Your task to perform on an android device: Go to eBay Image 0: 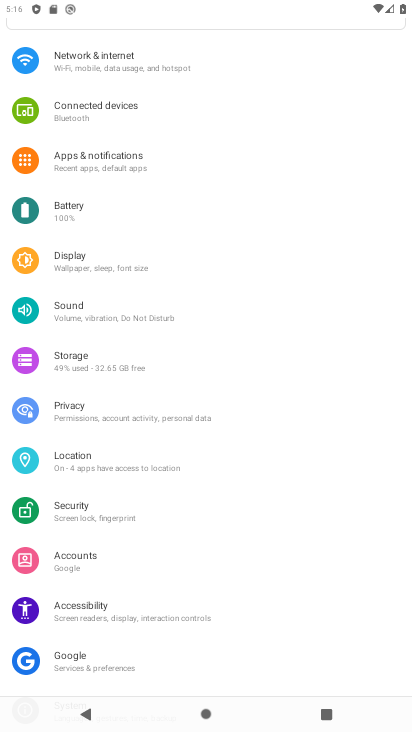
Step 0: press home button
Your task to perform on an android device: Go to eBay Image 1: 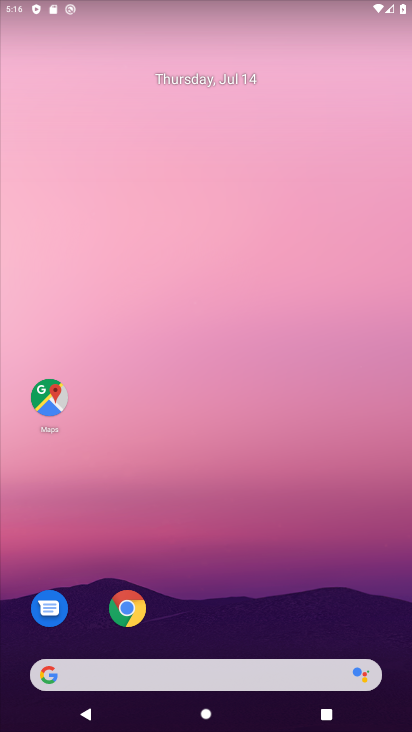
Step 1: click (129, 611)
Your task to perform on an android device: Go to eBay Image 2: 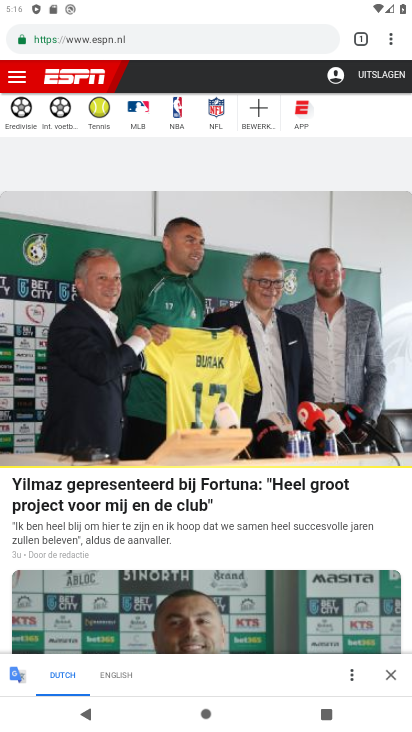
Step 2: click (243, 40)
Your task to perform on an android device: Go to eBay Image 3: 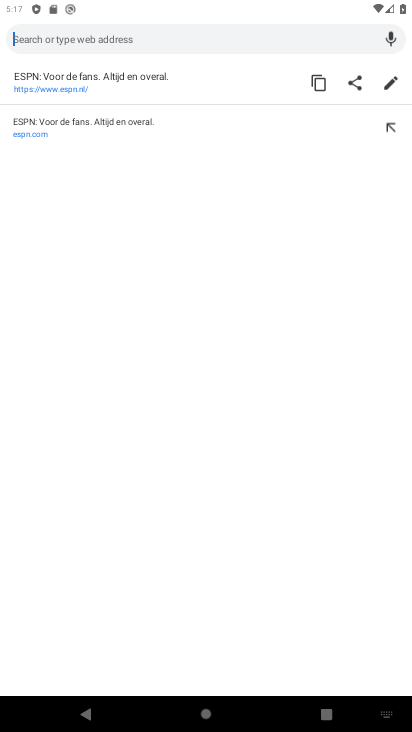
Step 3: type "eBay"
Your task to perform on an android device: Go to eBay Image 4: 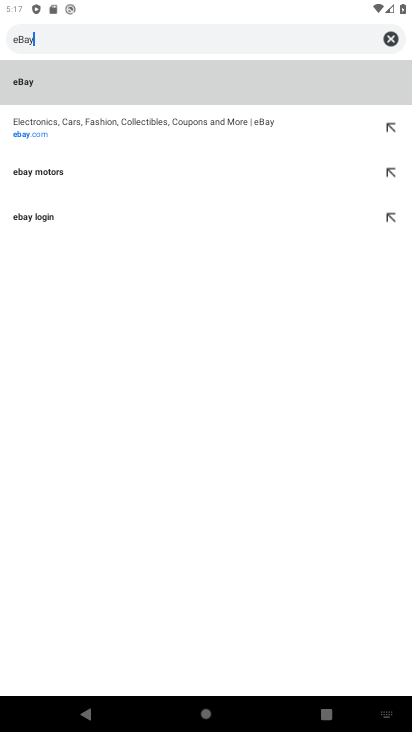
Step 4: click (41, 89)
Your task to perform on an android device: Go to eBay Image 5: 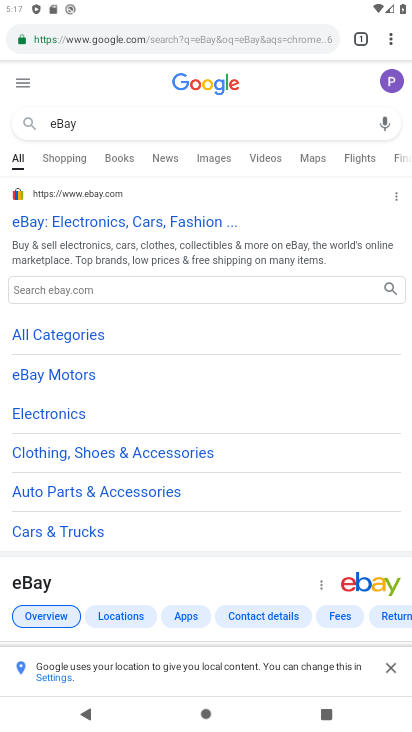
Step 5: click (69, 220)
Your task to perform on an android device: Go to eBay Image 6: 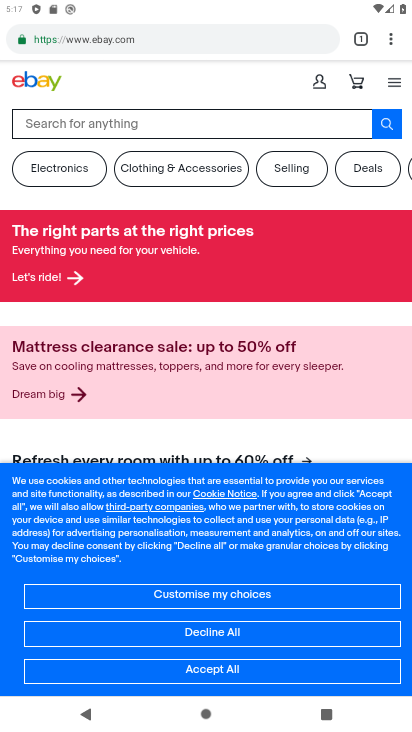
Step 6: click (250, 670)
Your task to perform on an android device: Go to eBay Image 7: 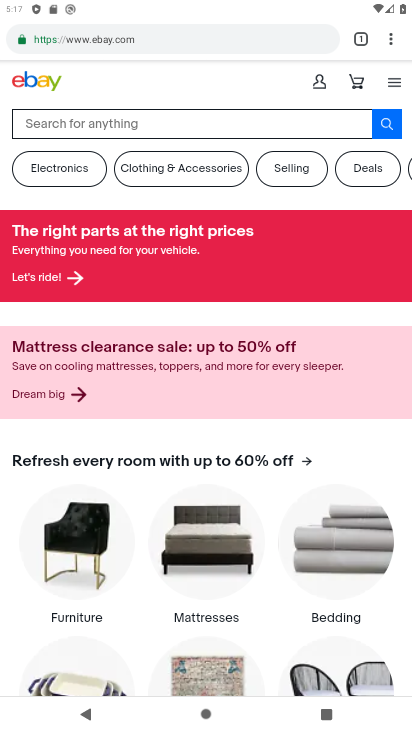
Step 7: task complete